Your task to perform on an android device: open app "Life360: Find Family & Friends" Image 0: 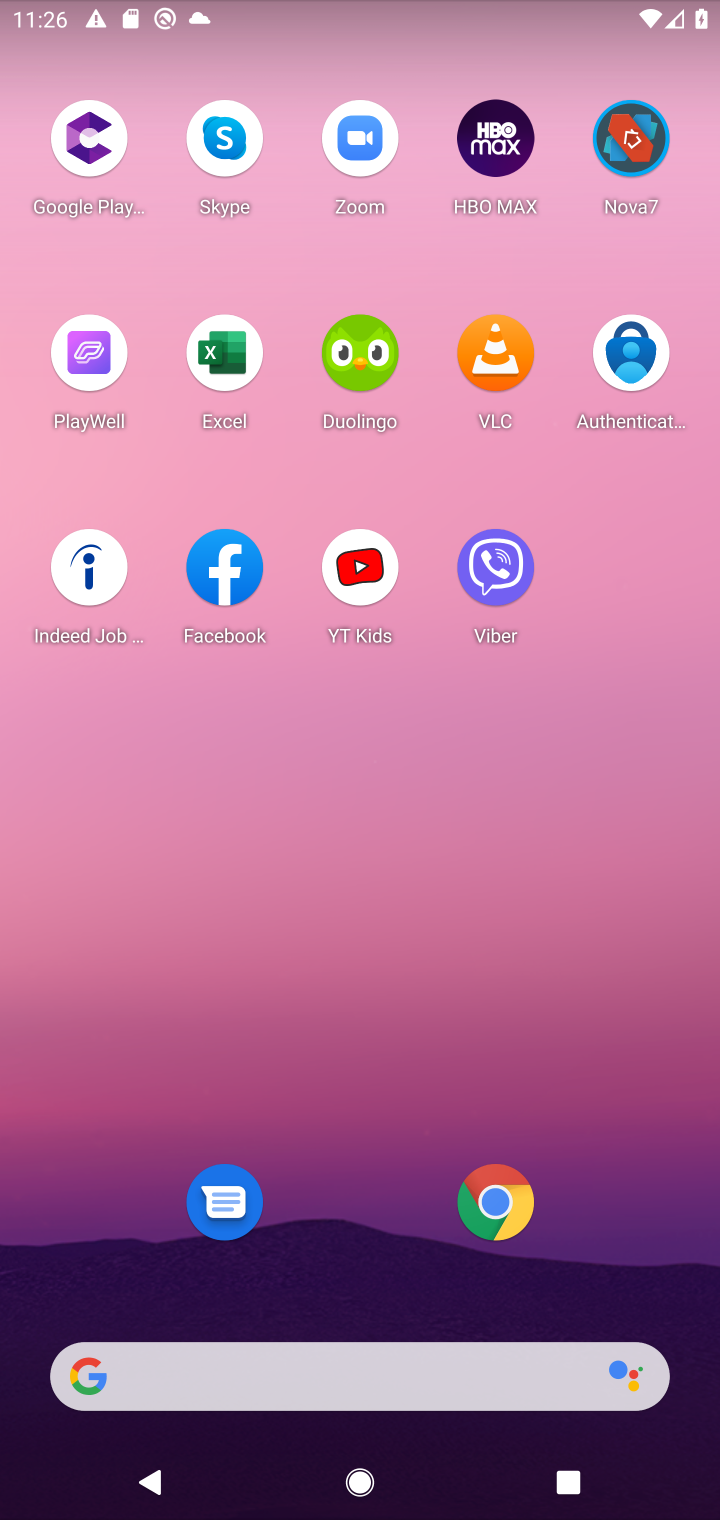
Step 0: click (427, 1387)
Your task to perform on an android device: open app "Life360: Find Family & Friends" Image 1: 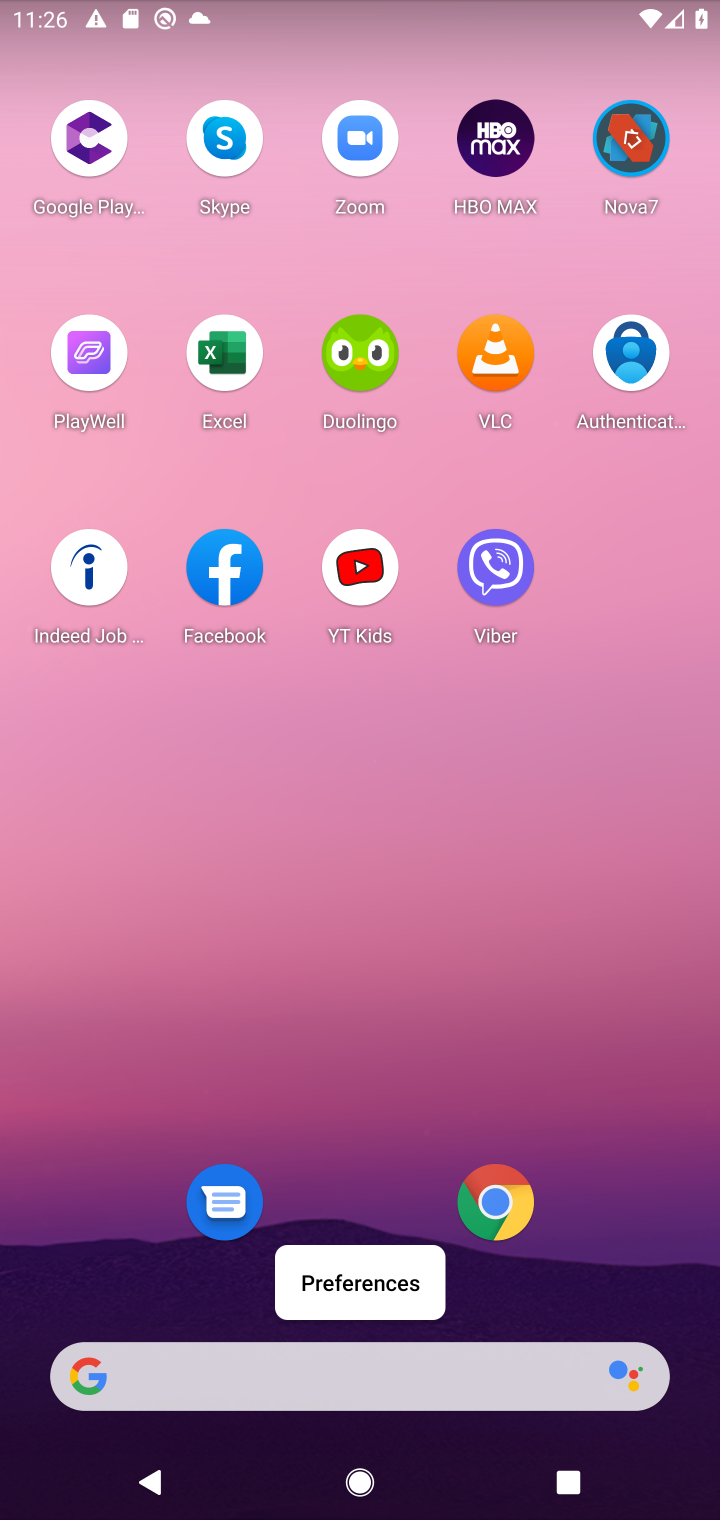
Step 1: type "life 360"
Your task to perform on an android device: open app "Life360: Find Family & Friends" Image 2: 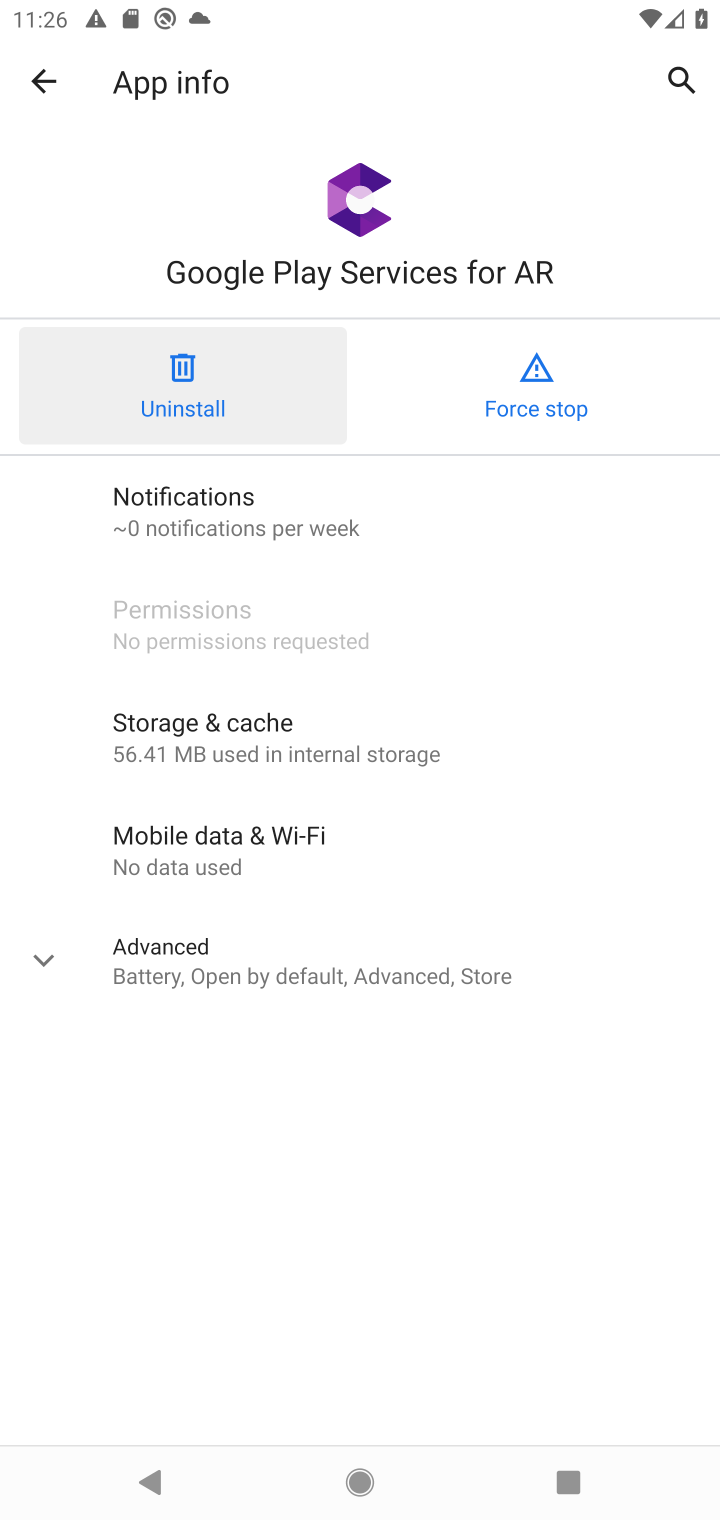
Step 2: task complete